Your task to perform on an android device: turn off picture-in-picture Image 0: 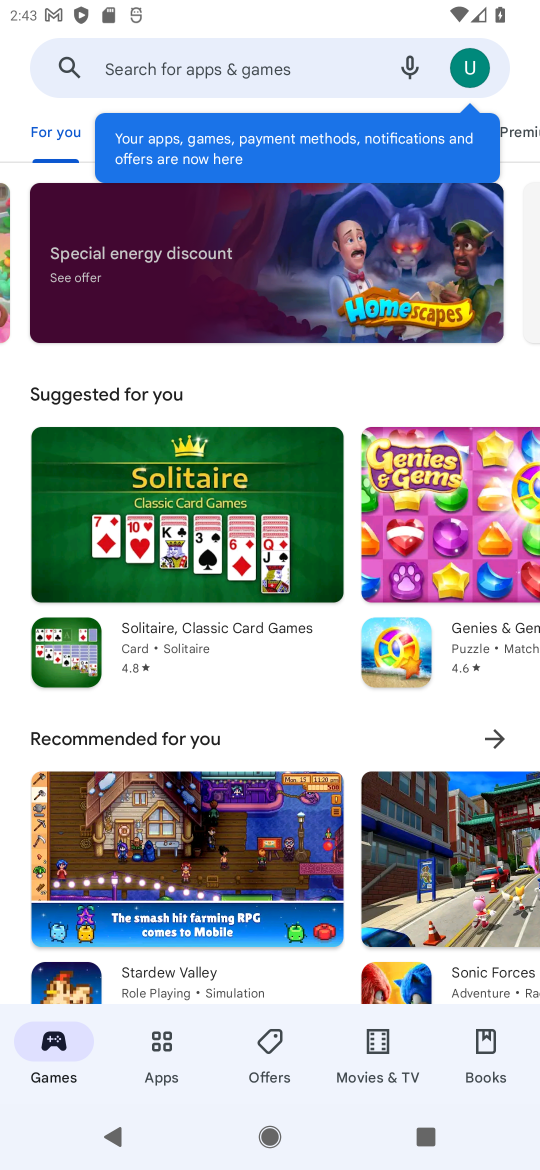
Step 0: press home button
Your task to perform on an android device: turn off picture-in-picture Image 1: 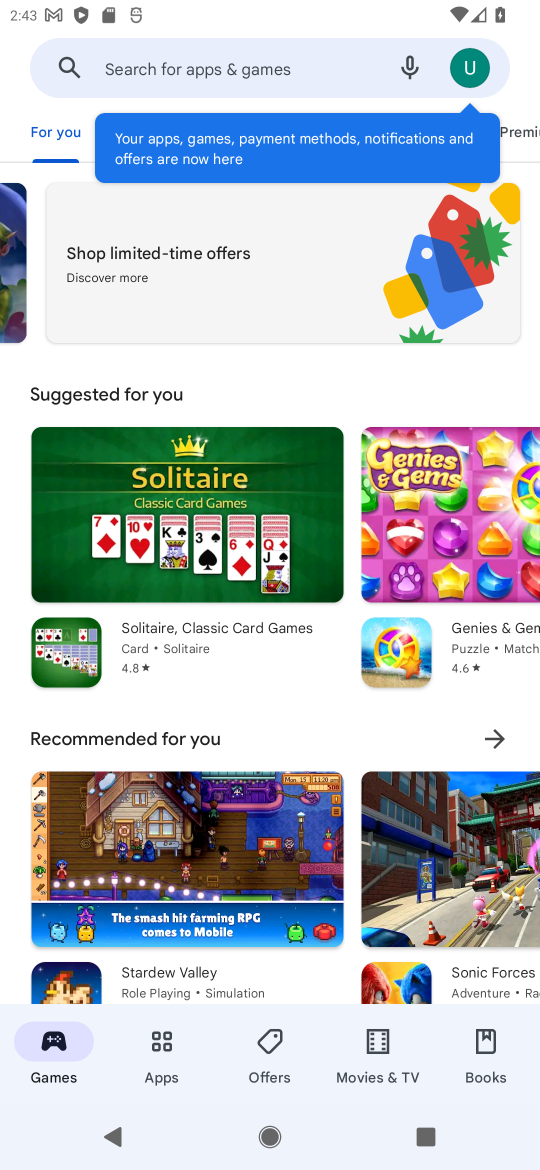
Step 1: drag from (236, 929) to (446, 1152)
Your task to perform on an android device: turn off picture-in-picture Image 2: 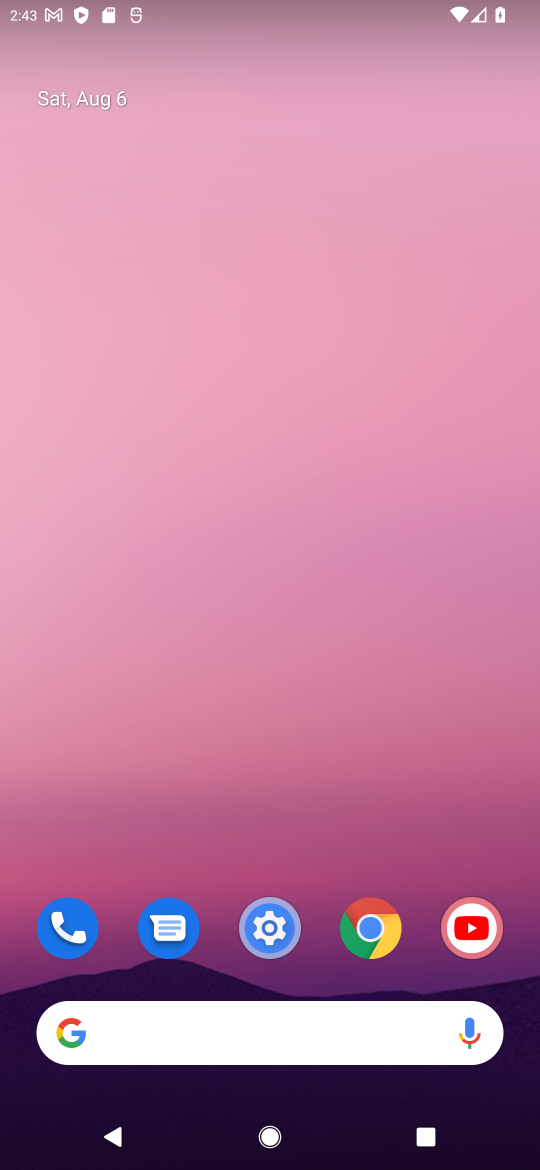
Step 2: drag from (247, 961) to (413, 63)
Your task to perform on an android device: turn off picture-in-picture Image 3: 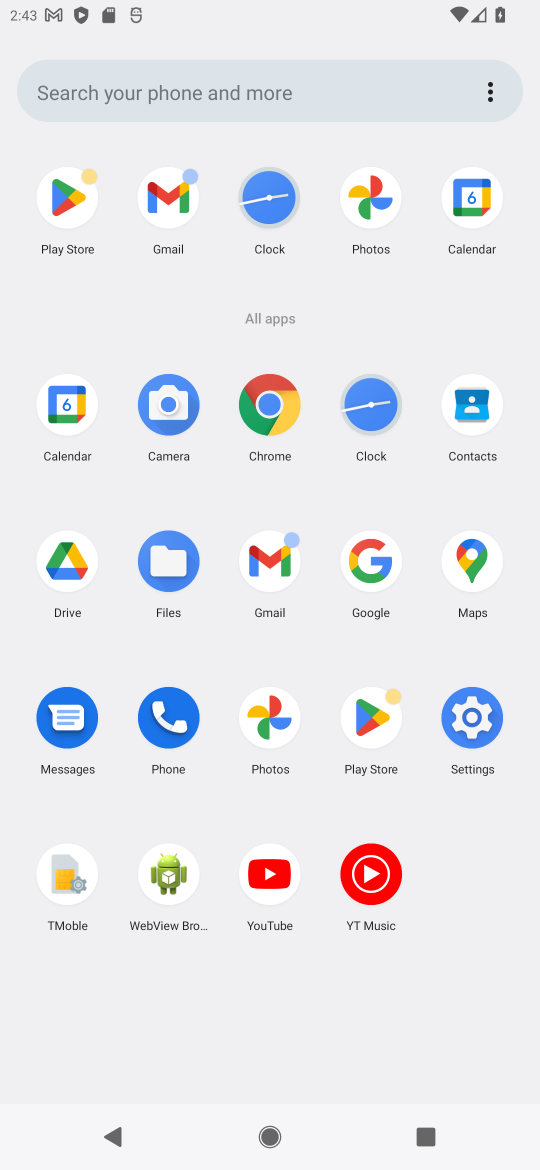
Step 3: click (473, 705)
Your task to perform on an android device: turn off picture-in-picture Image 4: 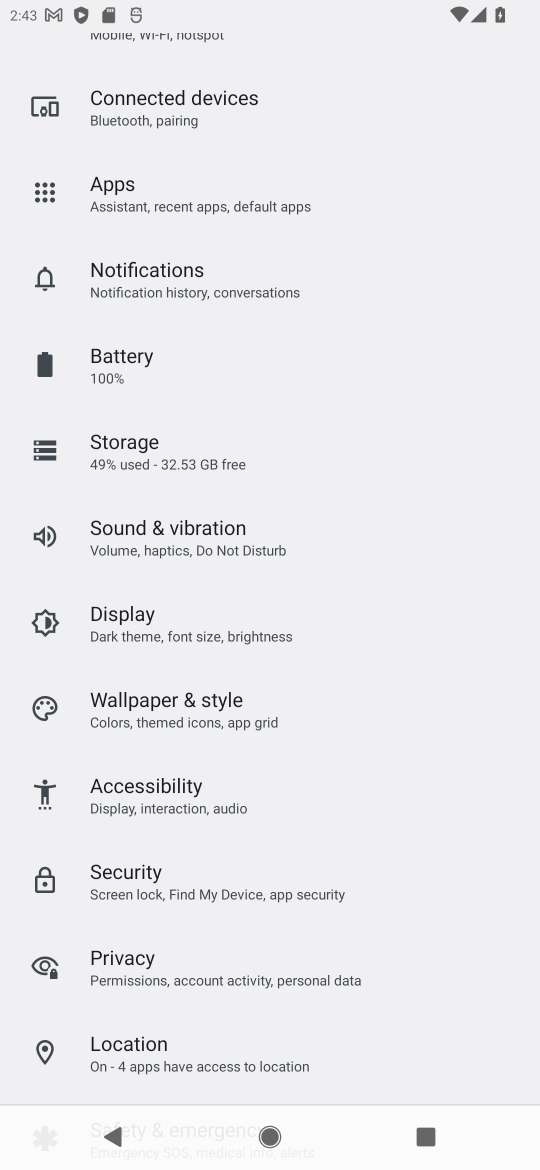
Step 4: click (221, 291)
Your task to perform on an android device: turn off picture-in-picture Image 5: 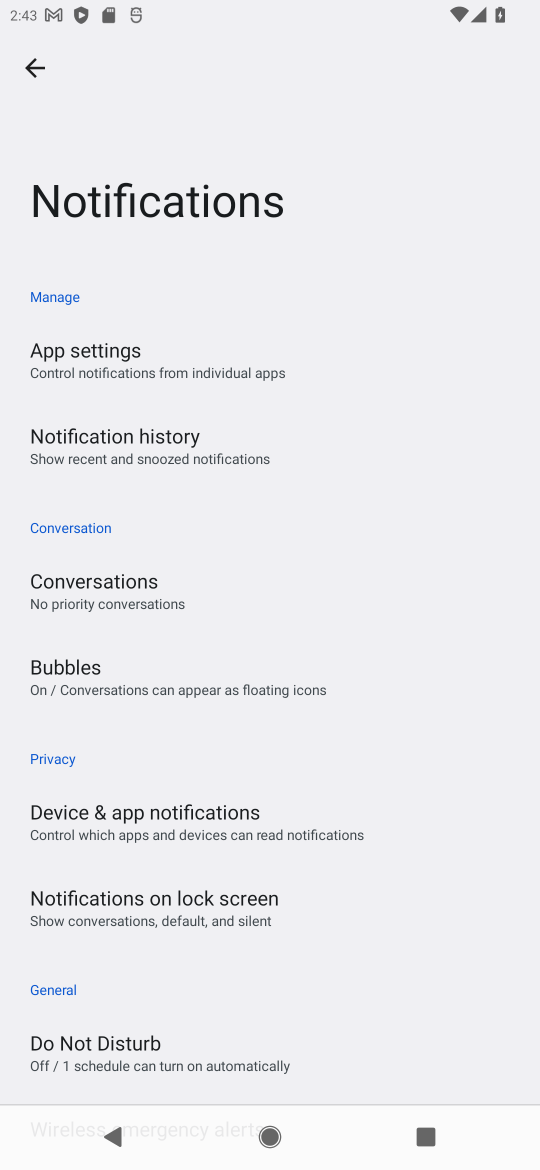
Step 5: drag from (244, 939) to (337, 376)
Your task to perform on an android device: turn off picture-in-picture Image 6: 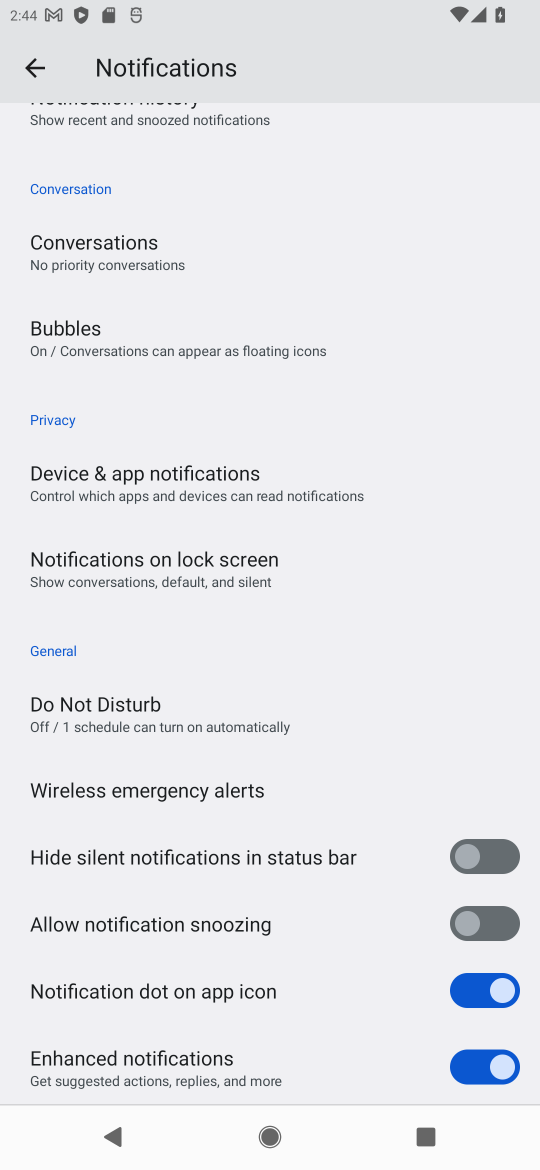
Step 6: drag from (308, 320) to (266, 1162)
Your task to perform on an android device: turn off picture-in-picture Image 7: 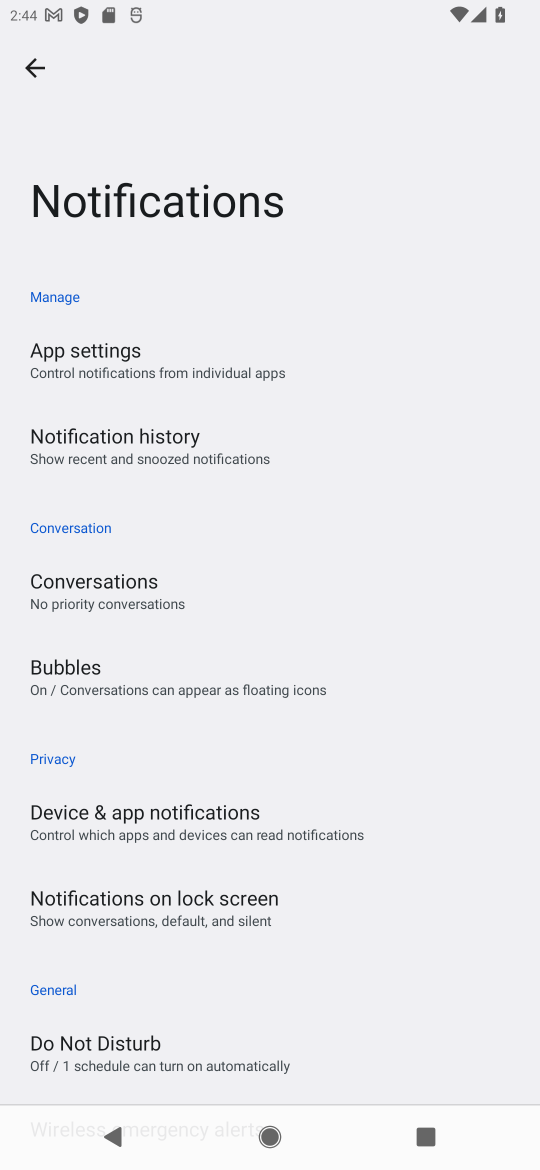
Step 7: click (235, 438)
Your task to perform on an android device: turn off picture-in-picture Image 8: 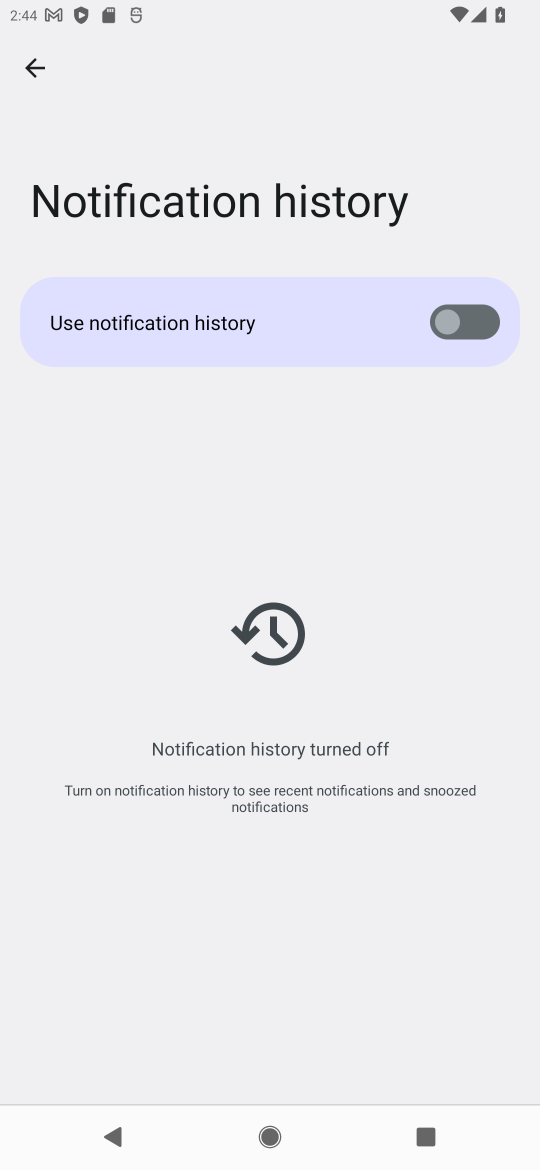
Step 8: click (43, 90)
Your task to perform on an android device: turn off picture-in-picture Image 9: 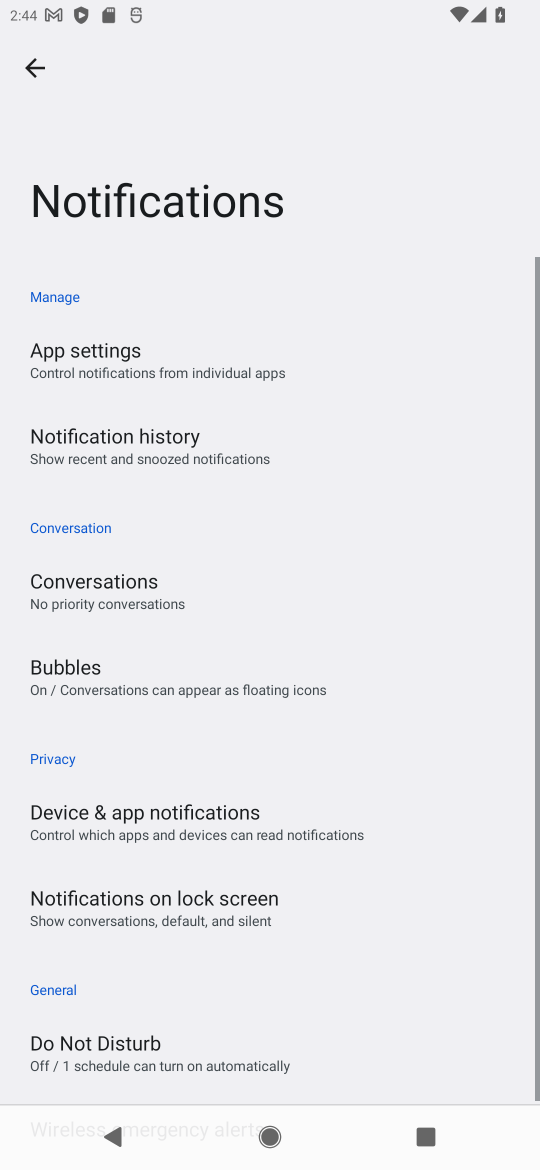
Step 9: drag from (216, 827) to (310, 541)
Your task to perform on an android device: turn off picture-in-picture Image 10: 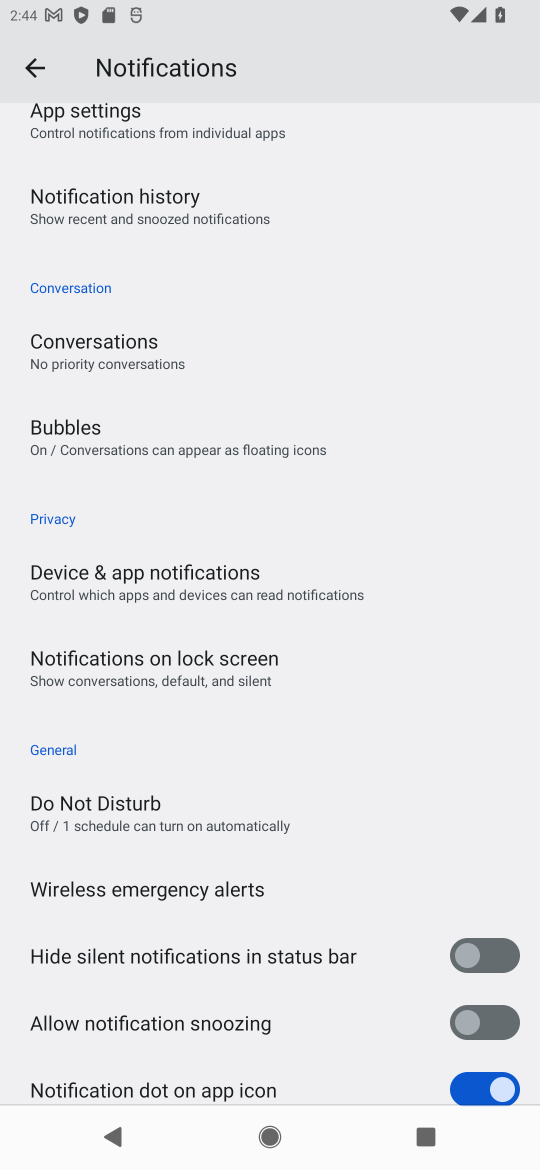
Step 10: click (88, 584)
Your task to perform on an android device: turn off picture-in-picture Image 11: 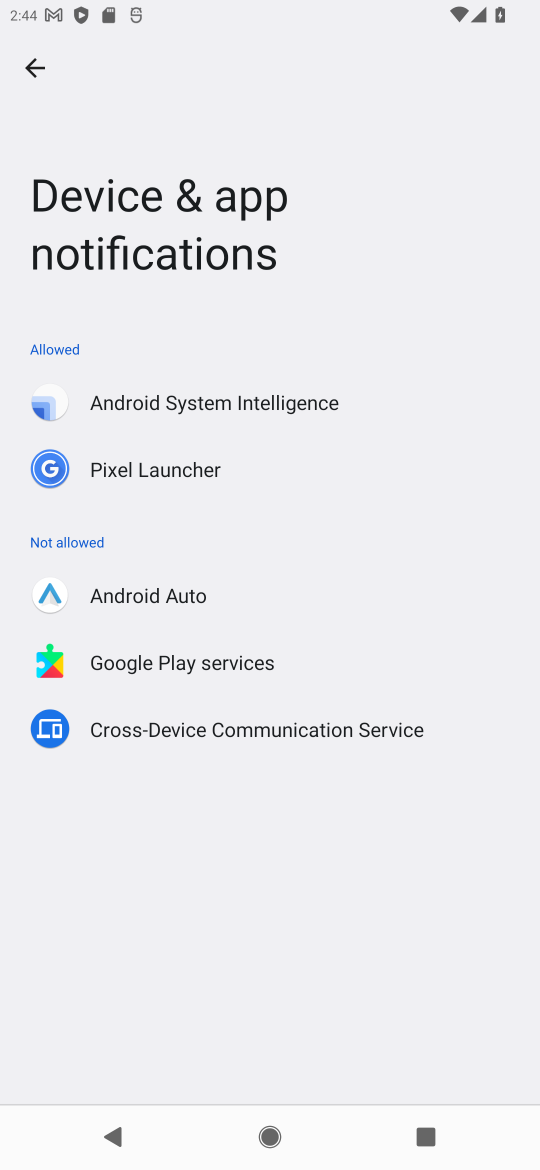
Step 11: press back button
Your task to perform on an android device: turn off picture-in-picture Image 12: 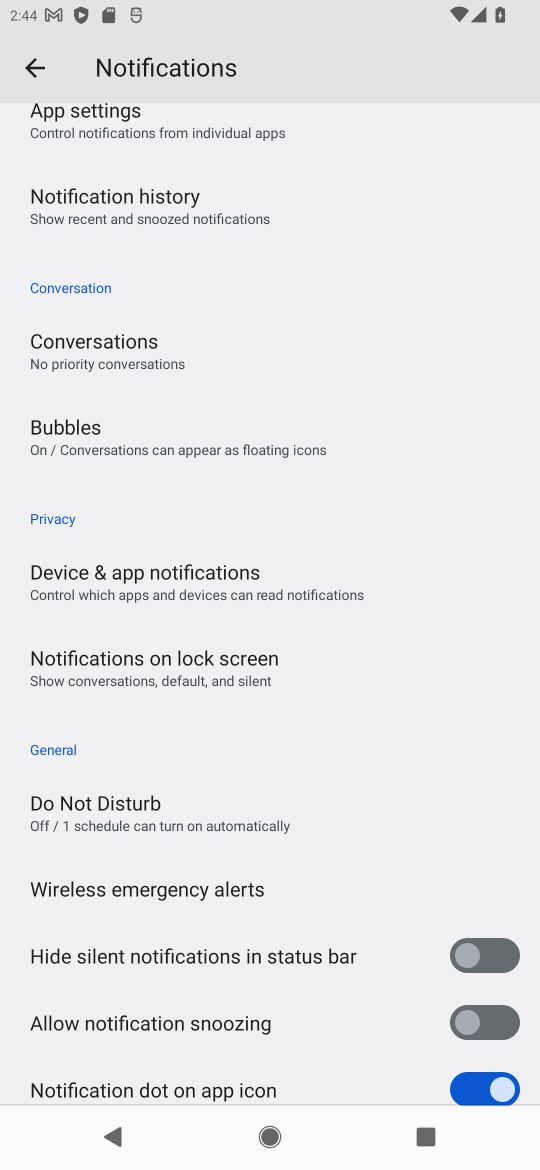
Step 12: drag from (295, 831) to (395, 516)
Your task to perform on an android device: turn off picture-in-picture Image 13: 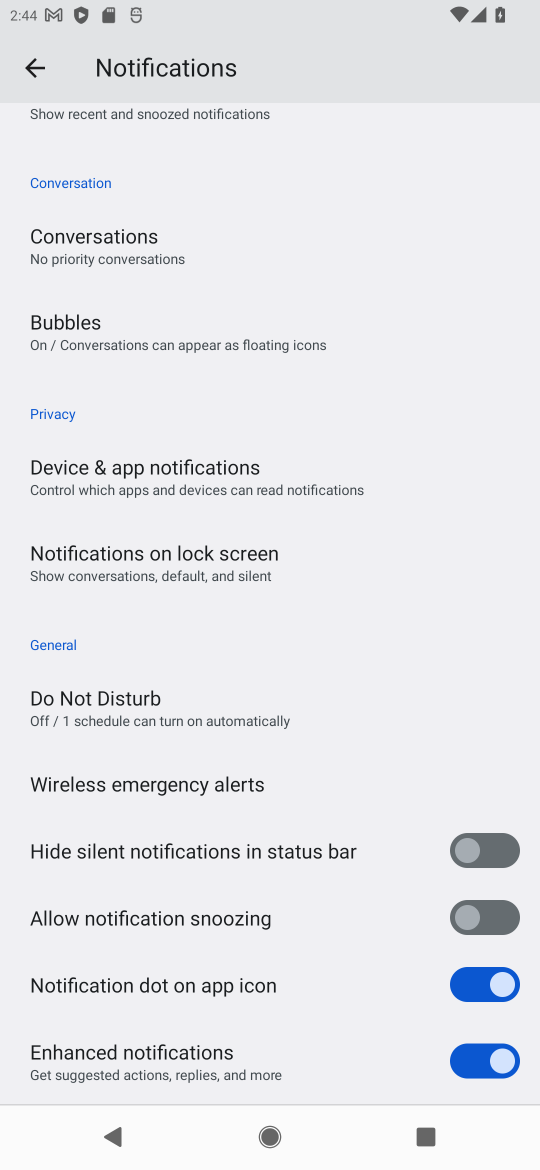
Step 13: click (271, 561)
Your task to perform on an android device: turn off picture-in-picture Image 14: 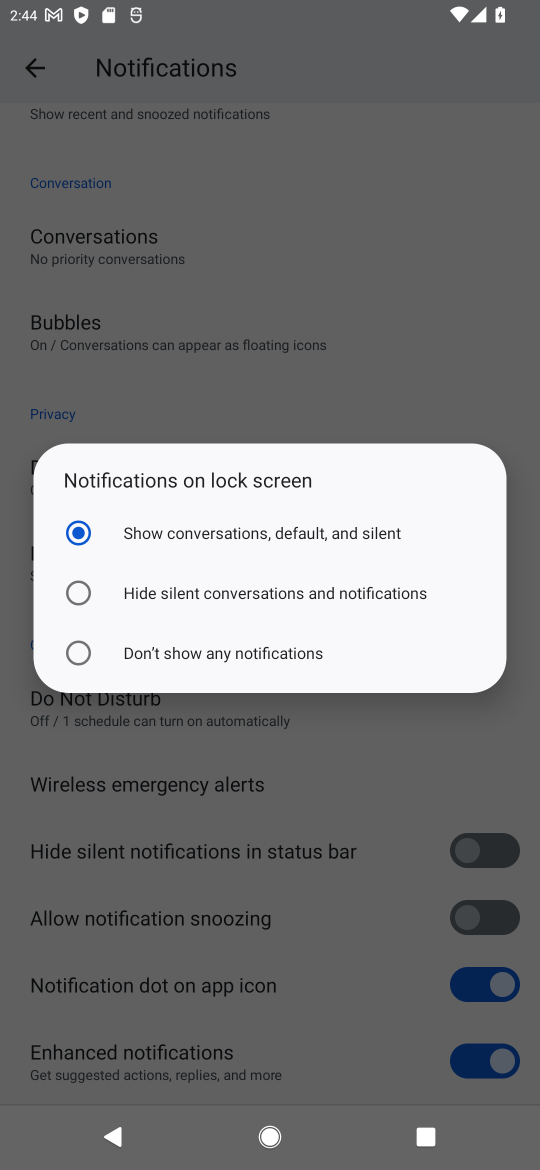
Step 14: task complete